Your task to perform on an android device: check data usage Image 0: 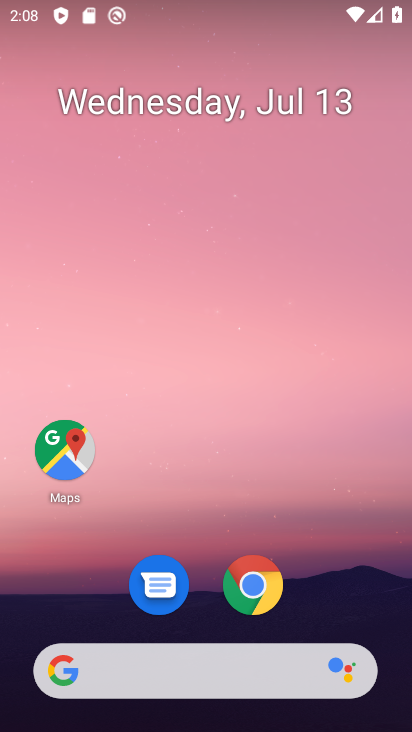
Step 0: drag from (188, 648) to (316, 26)
Your task to perform on an android device: check data usage Image 1: 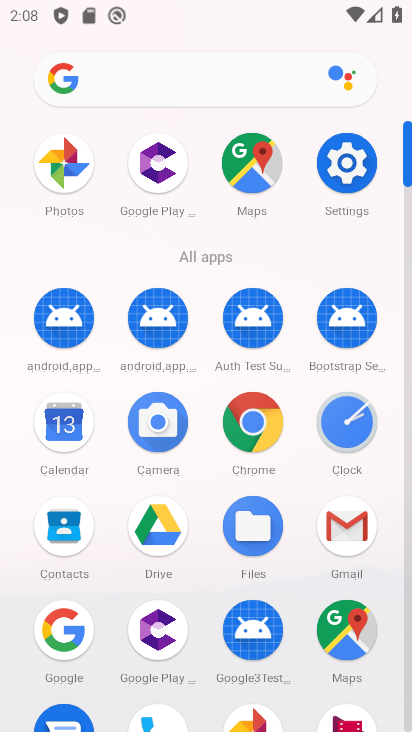
Step 1: click (347, 164)
Your task to perform on an android device: check data usage Image 2: 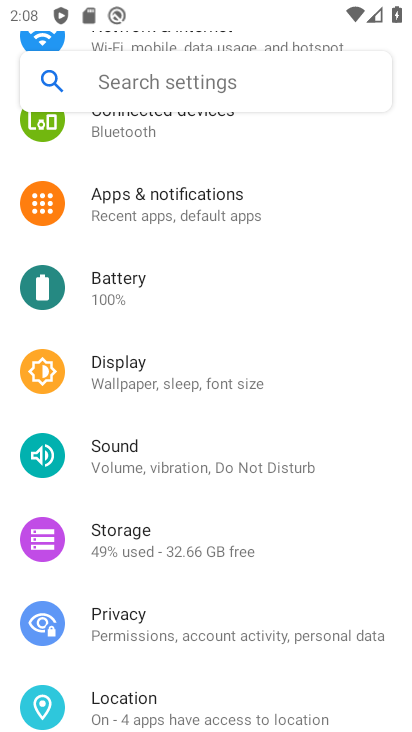
Step 2: drag from (301, 176) to (278, 626)
Your task to perform on an android device: check data usage Image 3: 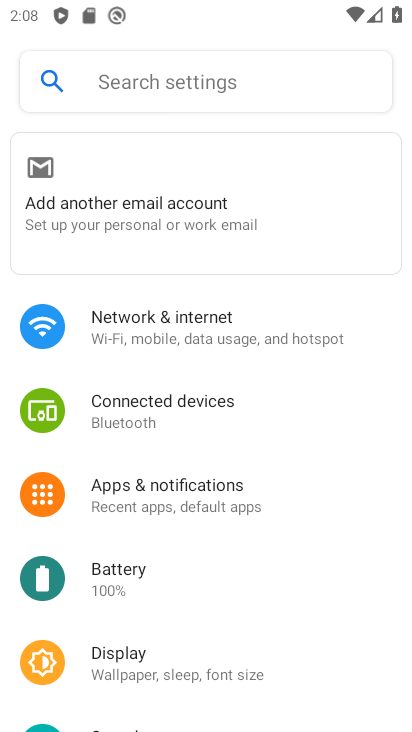
Step 3: click (187, 328)
Your task to perform on an android device: check data usage Image 4: 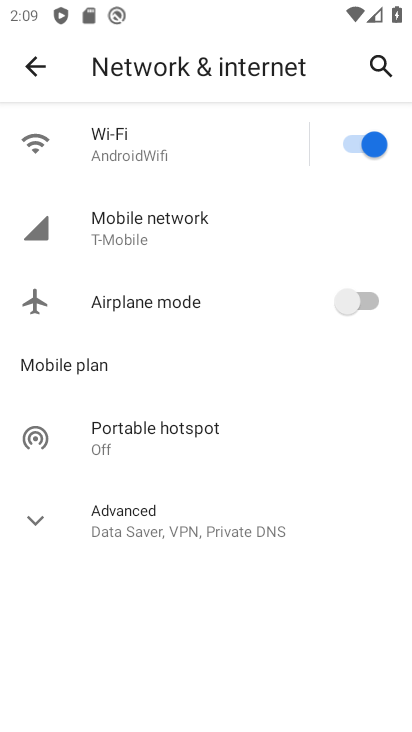
Step 4: click (134, 151)
Your task to perform on an android device: check data usage Image 5: 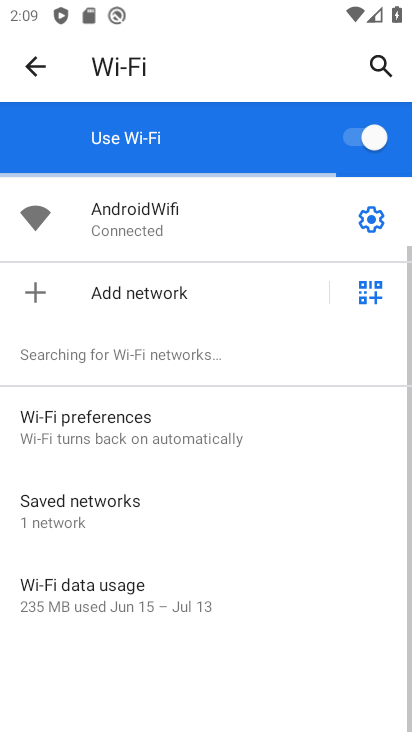
Step 5: click (96, 596)
Your task to perform on an android device: check data usage Image 6: 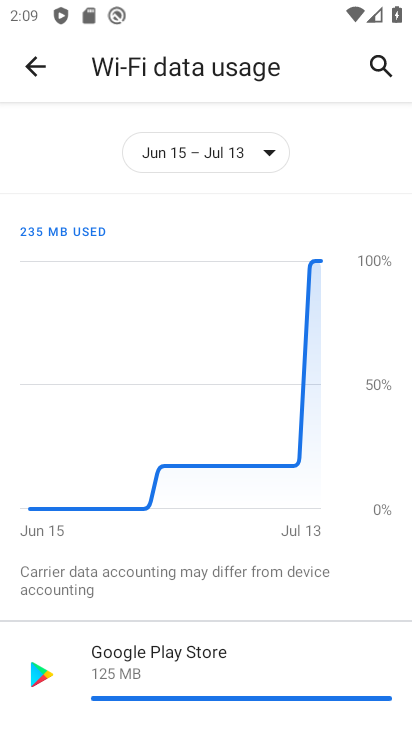
Step 6: task complete